Your task to perform on an android device: toggle data saver in the chrome app Image 0: 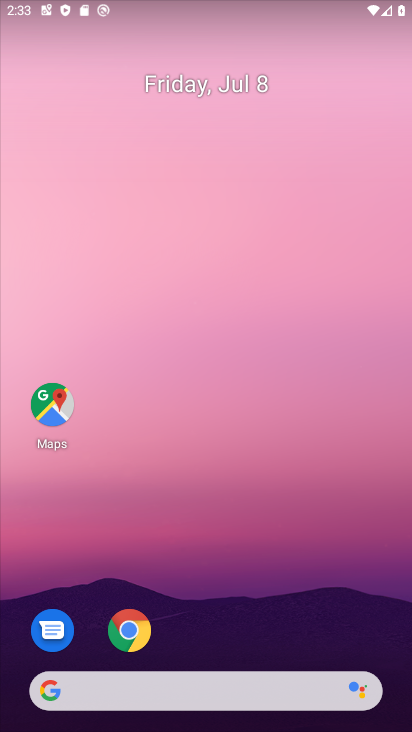
Step 0: click (148, 612)
Your task to perform on an android device: toggle data saver in the chrome app Image 1: 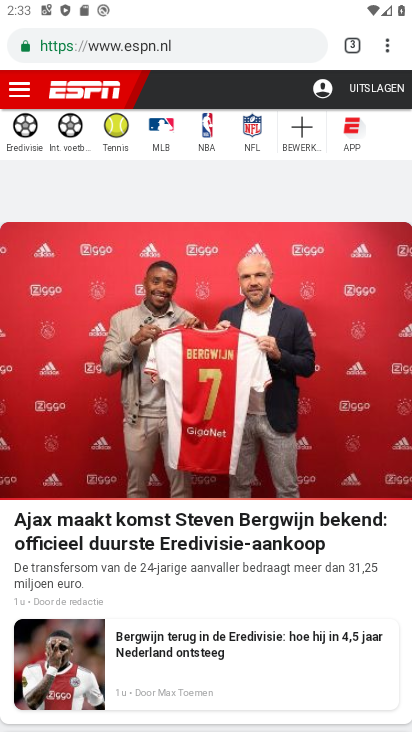
Step 1: click (395, 39)
Your task to perform on an android device: toggle data saver in the chrome app Image 2: 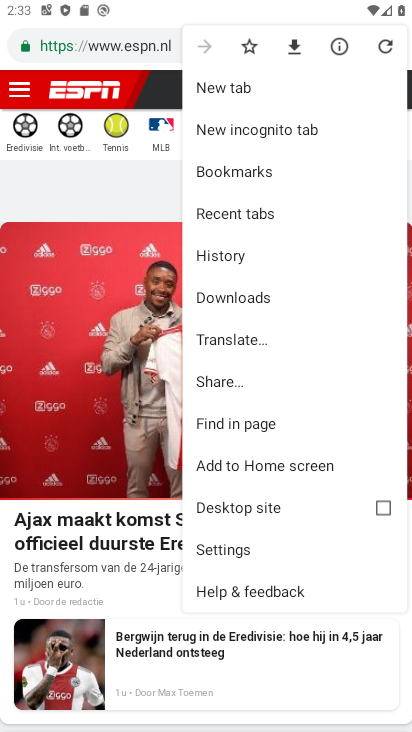
Step 2: click (280, 538)
Your task to perform on an android device: toggle data saver in the chrome app Image 3: 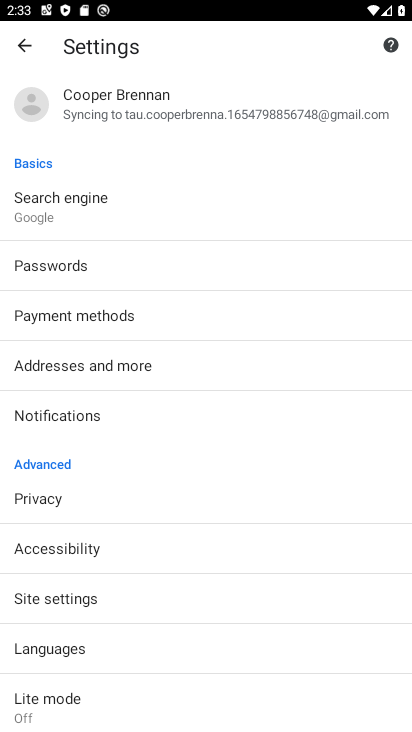
Step 3: click (148, 694)
Your task to perform on an android device: toggle data saver in the chrome app Image 4: 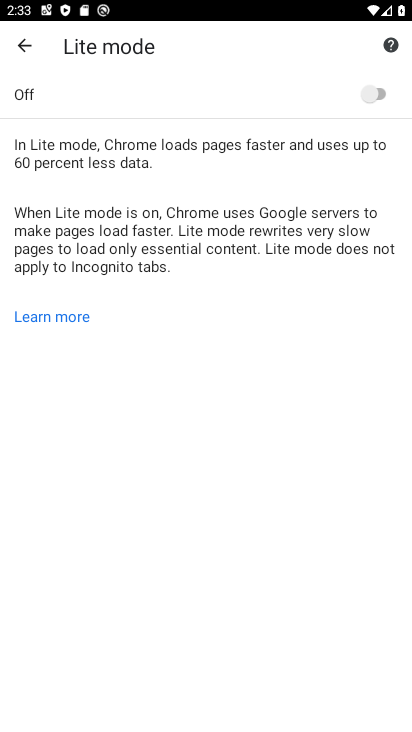
Step 4: click (361, 94)
Your task to perform on an android device: toggle data saver in the chrome app Image 5: 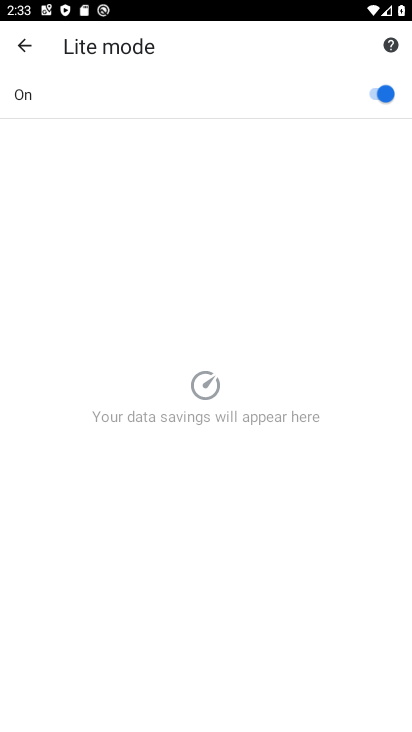
Step 5: task complete